Your task to perform on an android device: find snoozed emails in the gmail app Image 0: 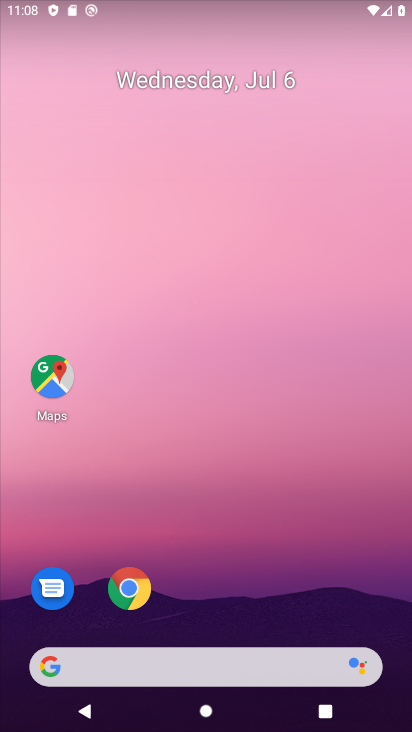
Step 0: drag from (189, 590) to (273, 86)
Your task to perform on an android device: find snoozed emails in the gmail app Image 1: 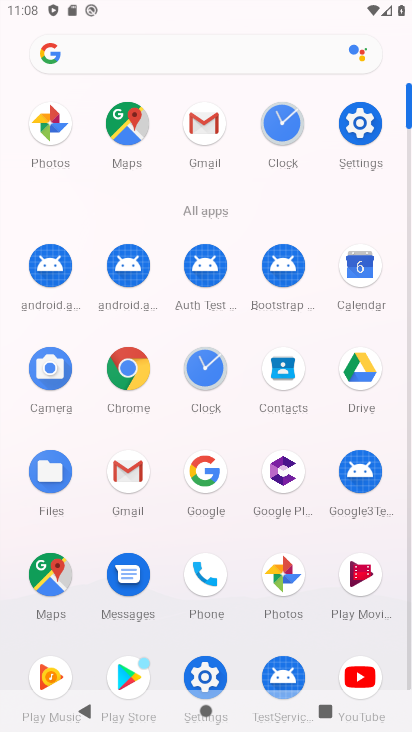
Step 1: click (118, 469)
Your task to perform on an android device: find snoozed emails in the gmail app Image 2: 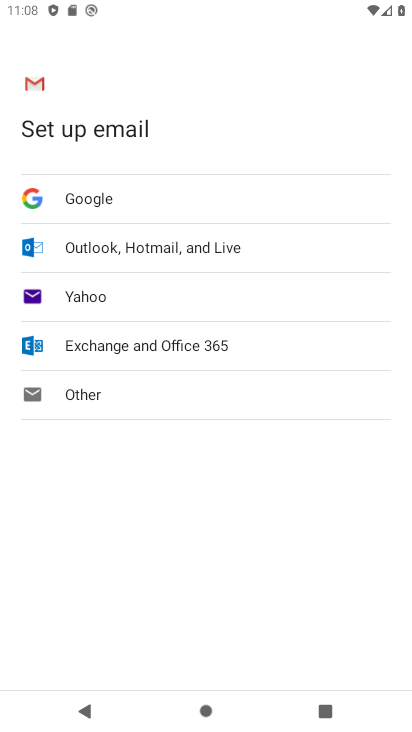
Step 2: press home button
Your task to perform on an android device: find snoozed emails in the gmail app Image 3: 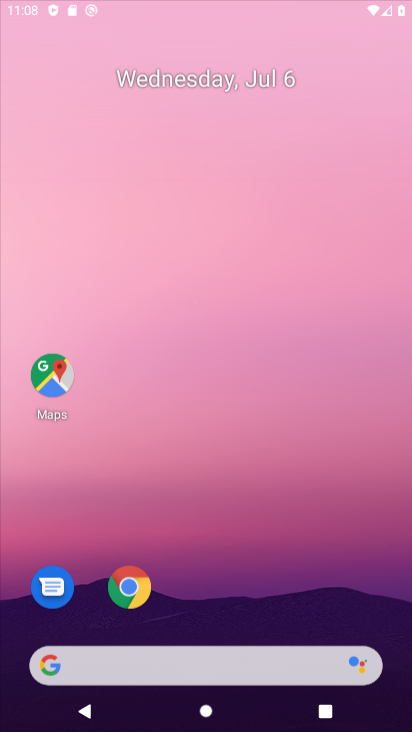
Step 3: drag from (224, 573) to (284, 6)
Your task to perform on an android device: find snoozed emails in the gmail app Image 4: 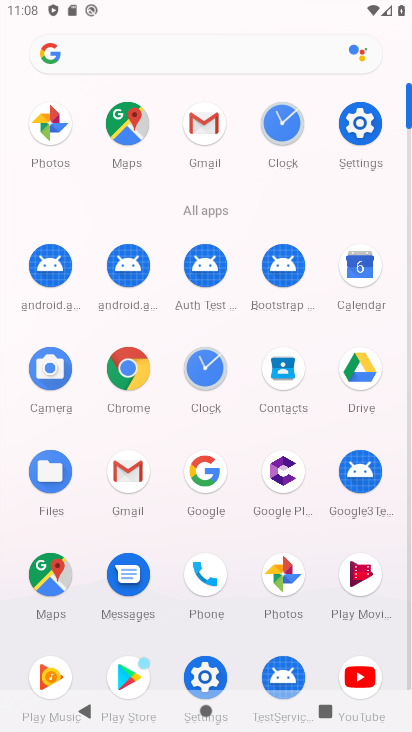
Step 4: click (124, 476)
Your task to perform on an android device: find snoozed emails in the gmail app Image 5: 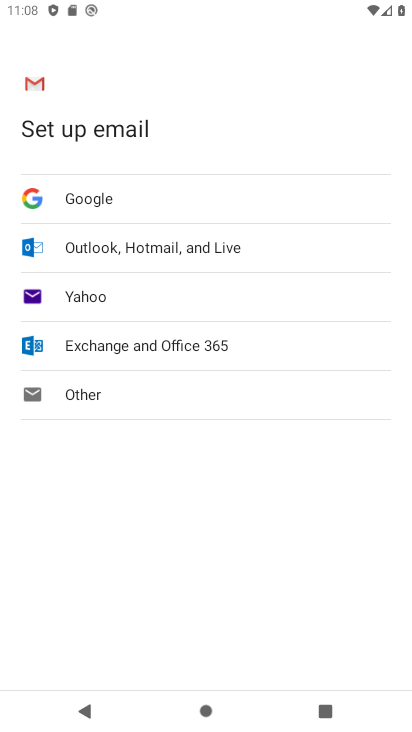
Step 5: press home button
Your task to perform on an android device: find snoozed emails in the gmail app Image 6: 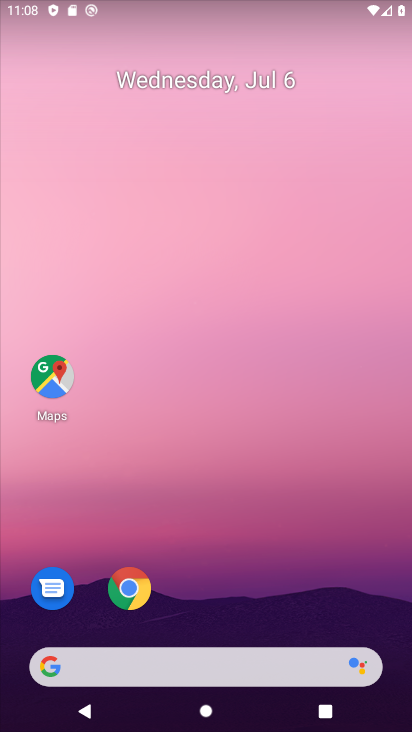
Step 6: drag from (165, 409) to (154, 175)
Your task to perform on an android device: find snoozed emails in the gmail app Image 7: 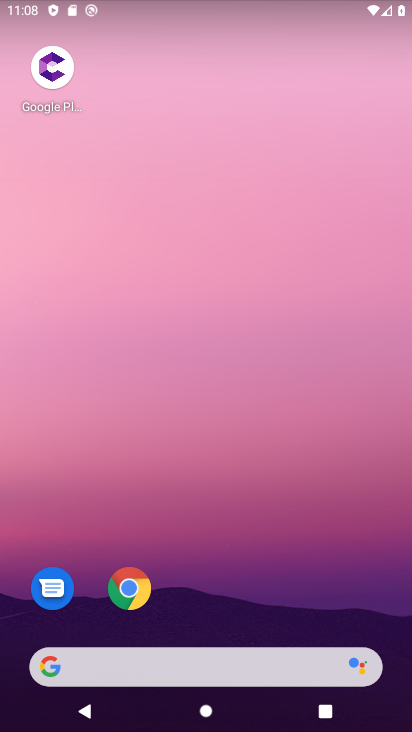
Step 7: drag from (195, 572) to (251, 205)
Your task to perform on an android device: find snoozed emails in the gmail app Image 8: 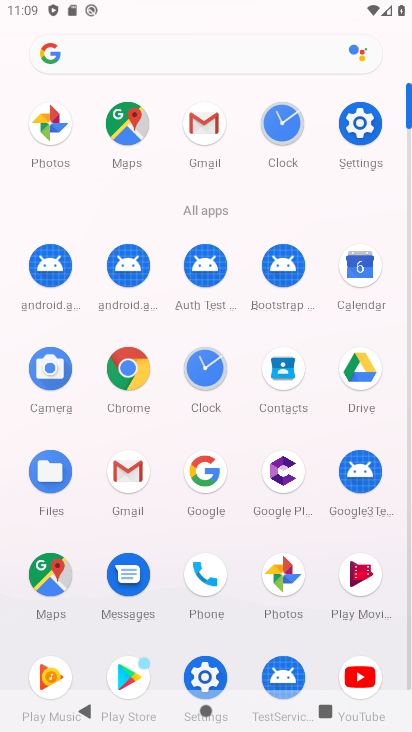
Step 8: click (140, 464)
Your task to perform on an android device: find snoozed emails in the gmail app Image 9: 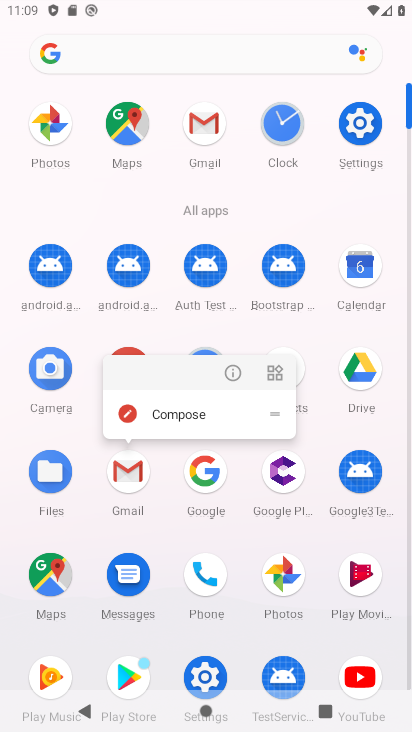
Step 9: click (235, 378)
Your task to perform on an android device: find snoozed emails in the gmail app Image 10: 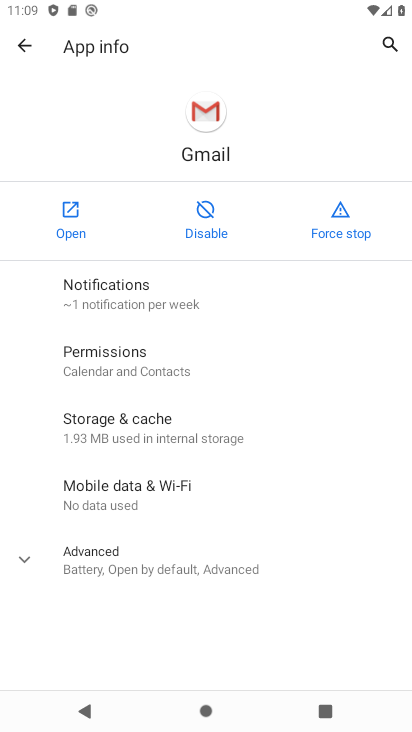
Step 10: click (78, 212)
Your task to perform on an android device: find snoozed emails in the gmail app Image 11: 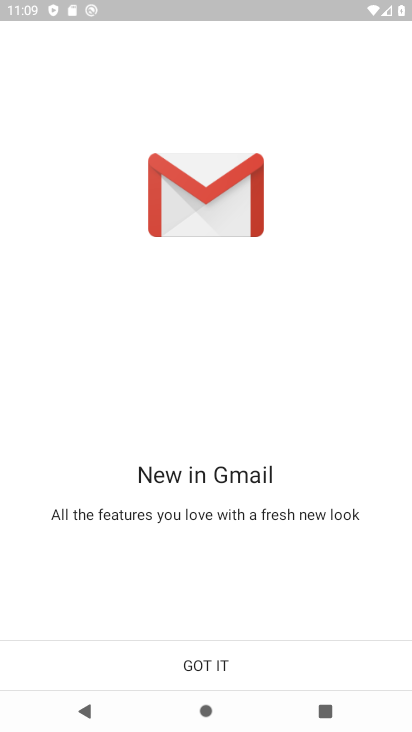
Step 11: click (209, 638)
Your task to perform on an android device: find snoozed emails in the gmail app Image 12: 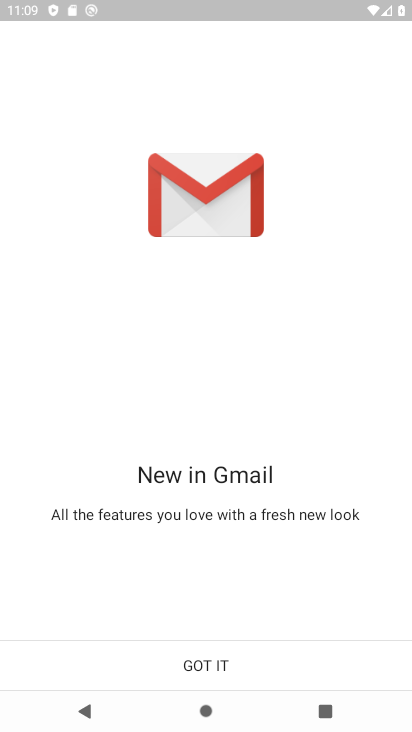
Step 12: click (212, 653)
Your task to perform on an android device: find snoozed emails in the gmail app Image 13: 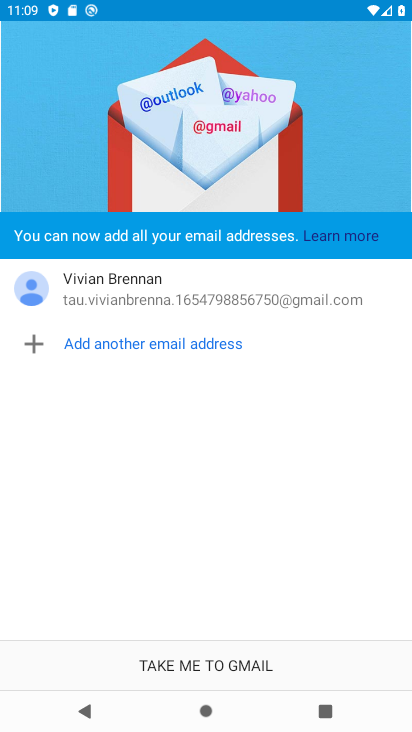
Step 13: click (190, 656)
Your task to perform on an android device: find snoozed emails in the gmail app Image 14: 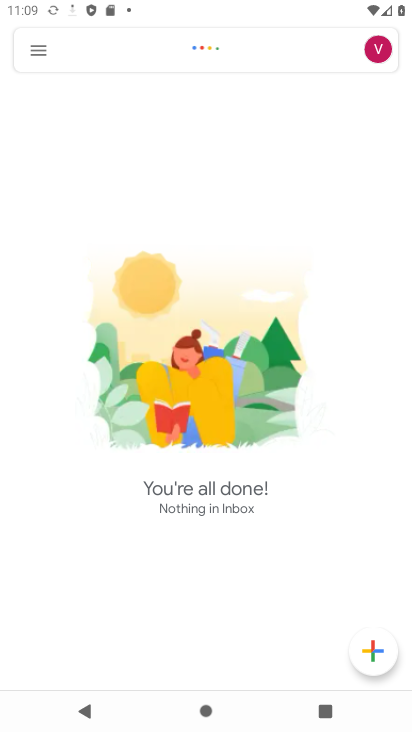
Step 14: click (28, 46)
Your task to perform on an android device: find snoozed emails in the gmail app Image 15: 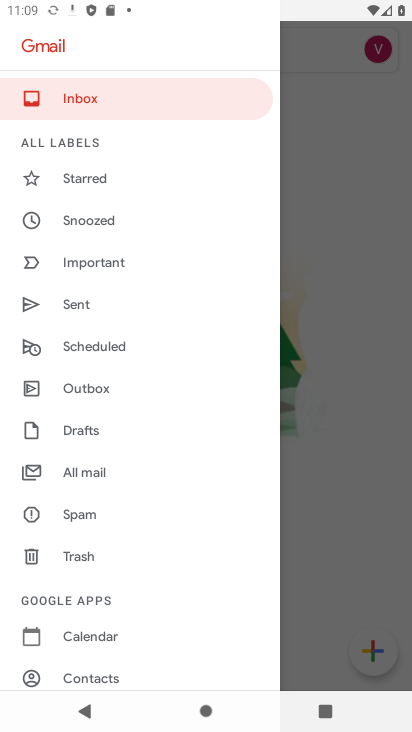
Step 15: click (67, 219)
Your task to perform on an android device: find snoozed emails in the gmail app Image 16: 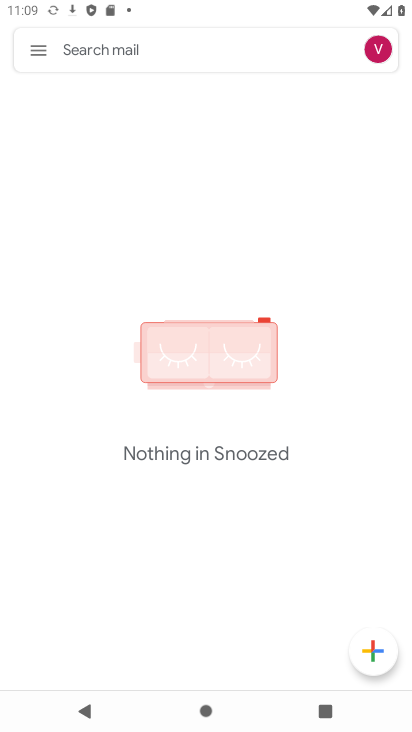
Step 16: task complete